Your task to perform on an android device: Go to location settings Image 0: 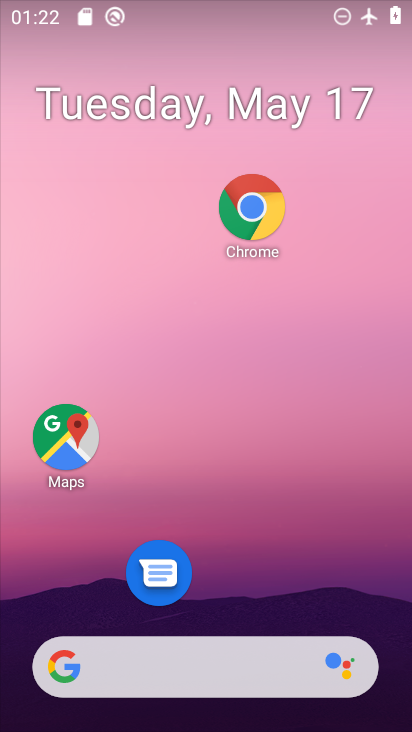
Step 0: drag from (178, 644) to (267, 0)
Your task to perform on an android device: Go to location settings Image 1: 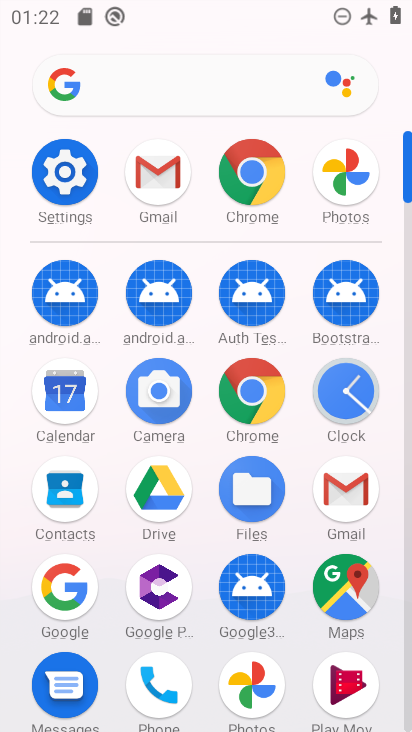
Step 1: click (47, 145)
Your task to perform on an android device: Go to location settings Image 2: 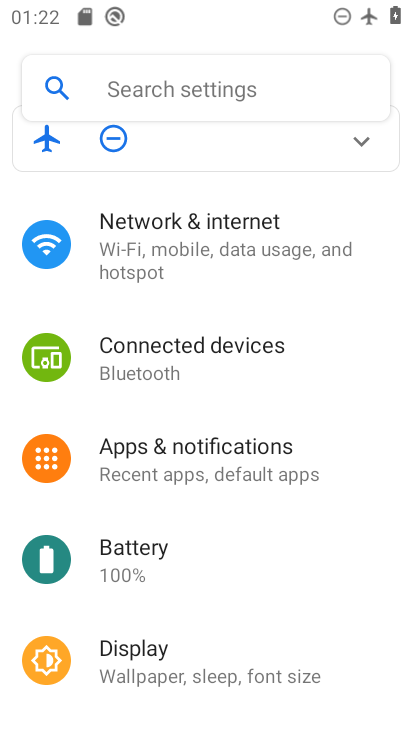
Step 2: drag from (223, 708) to (275, 163)
Your task to perform on an android device: Go to location settings Image 3: 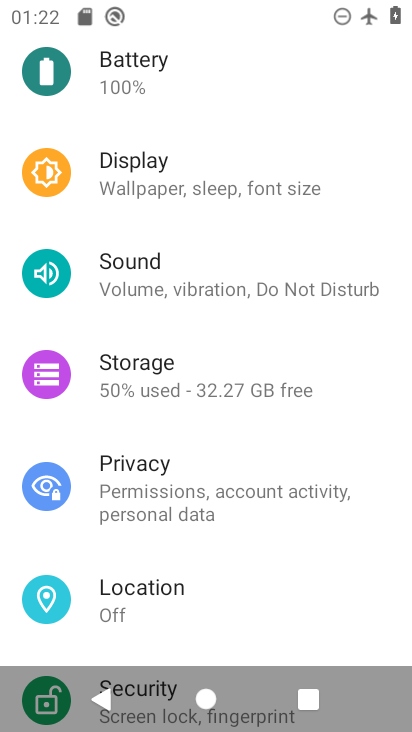
Step 3: click (194, 597)
Your task to perform on an android device: Go to location settings Image 4: 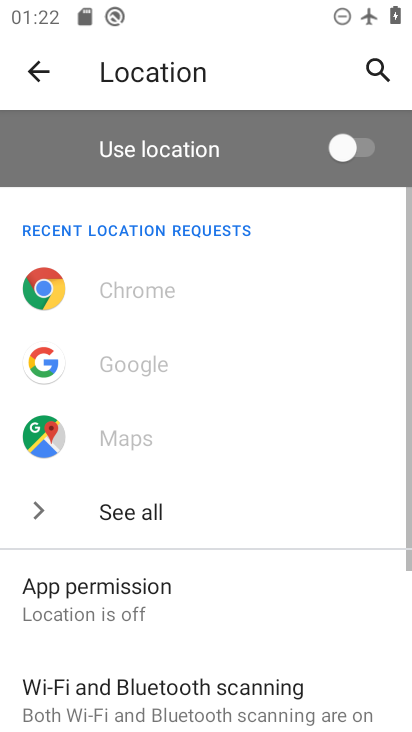
Step 4: task complete